Your task to perform on an android device: Go to Maps Image 0: 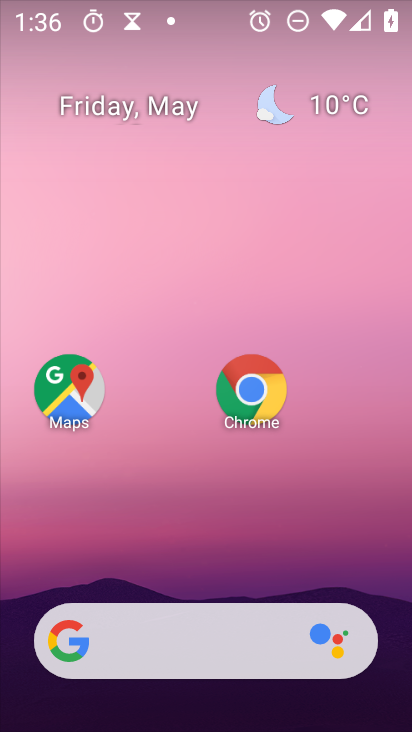
Step 0: press home button
Your task to perform on an android device: Go to Maps Image 1: 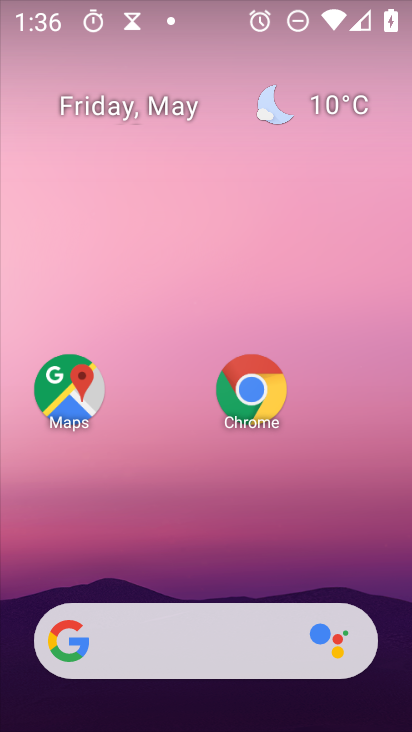
Step 1: click (83, 400)
Your task to perform on an android device: Go to Maps Image 2: 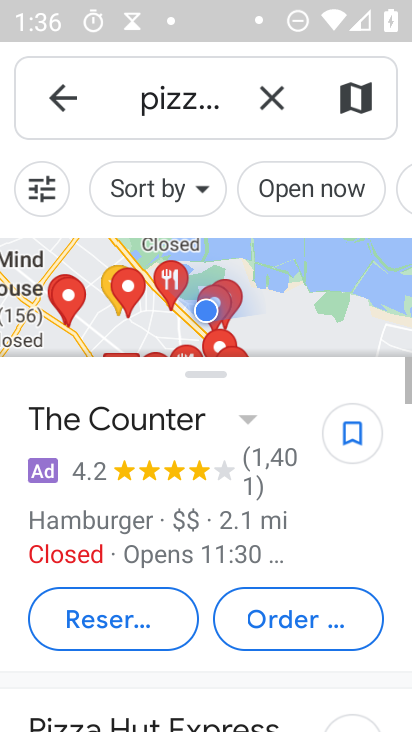
Step 2: click (63, 97)
Your task to perform on an android device: Go to Maps Image 3: 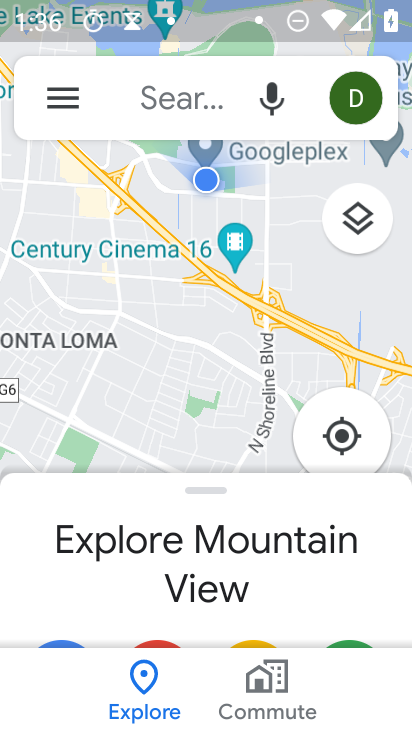
Step 3: task complete